Your task to perform on an android device: Do I have any events this weekend? Image 0: 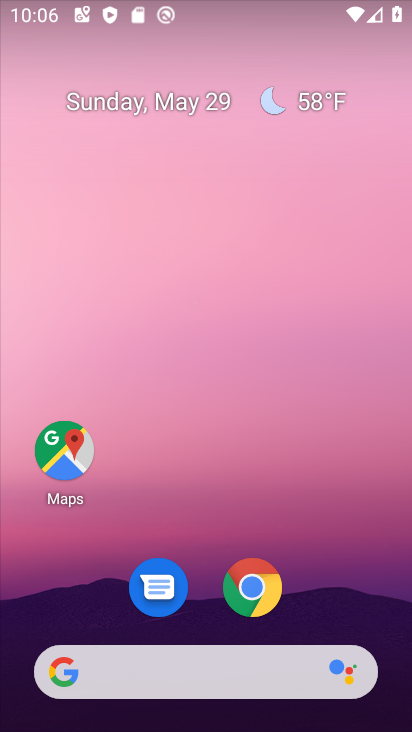
Step 0: drag from (387, 604) to (331, 253)
Your task to perform on an android device: Do I have any events this weekend? Image 1: 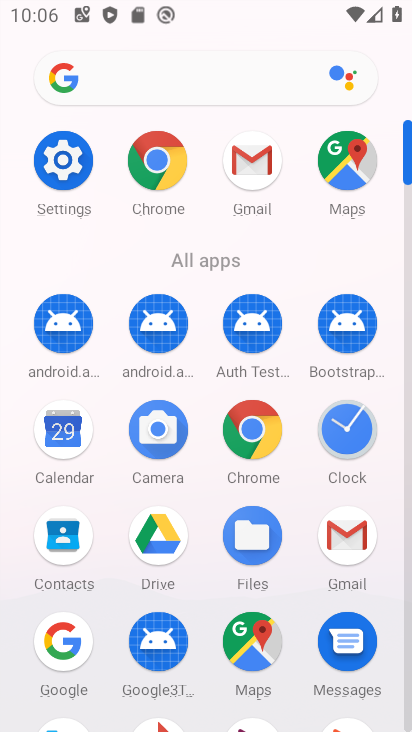
Step 1: click (70, 438)
Your task to perform on an android device: Do I have any events this weekend? Image 2: 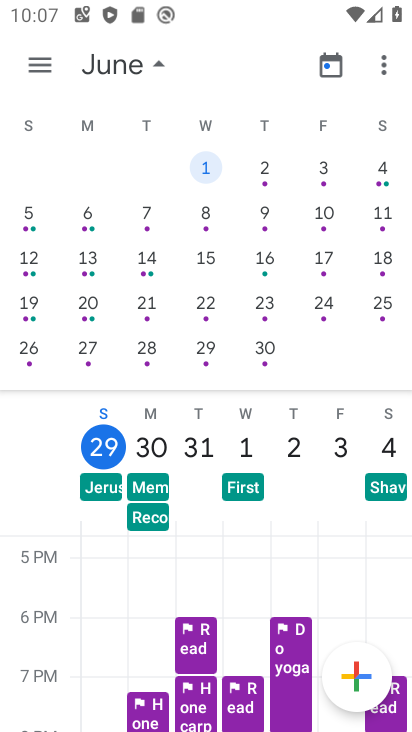
Step 2: click (156, 66)
Your task to perform on an android device: Do I have any events this weekend? Image 3: 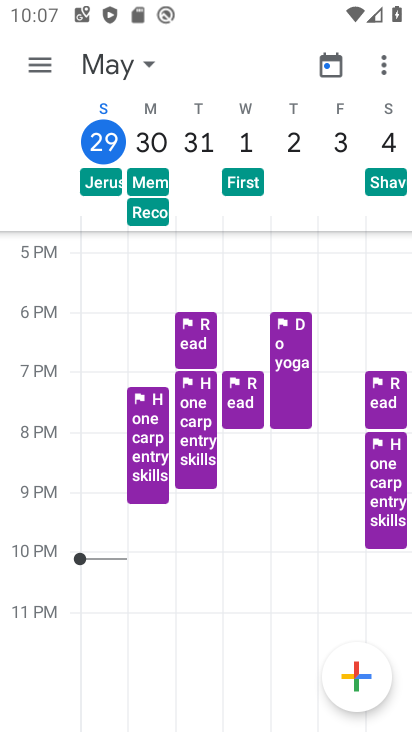
Step 3: click (41, 63)
Your task to perform on an android device: Do I have any events this weekend? Image 4: 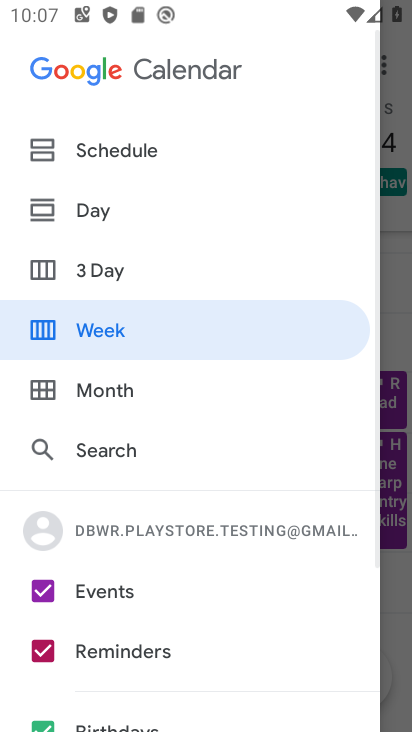
Step 4: click (135, 263)
Your task to perform on an android device: Do I have any events this weekend? Image 5: 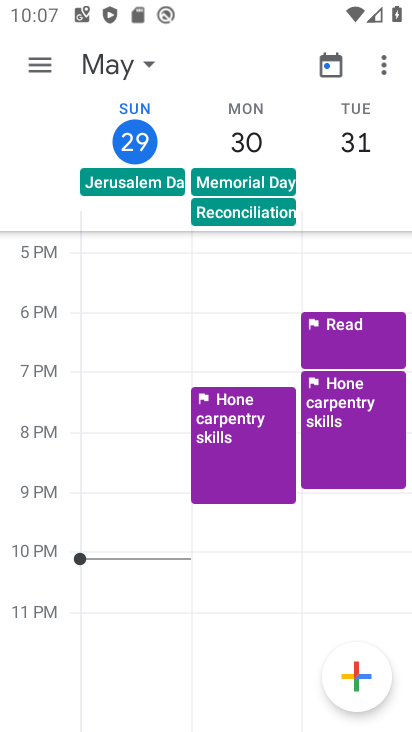
Step 5: drag from (369, 150) to (143, 158)
Your task to perform on an android device: Do I have any events this weekend? Image 6: 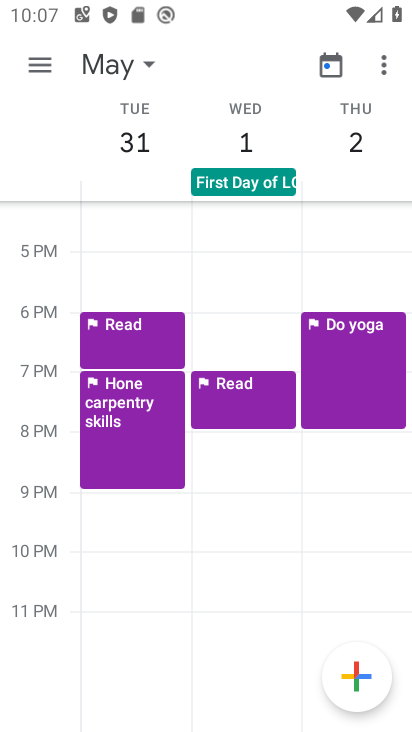
Step 6: drag from (377, 129) to (151, 134)
Your task to perform on an android device: Do I have any events this weekend? Image 7: 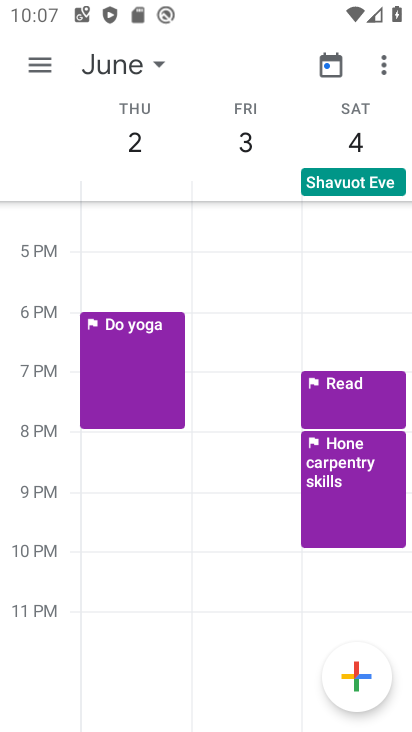
Step 7: click (365, 134)
Your task to perform on an android device: Do I have any events this weekend? Image 8: 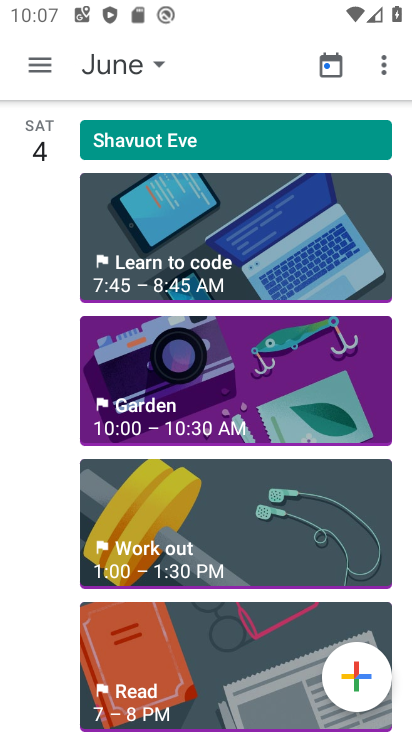
Step 8: task complete